Your task to perform on an android device: Open Chrome and go to the settings page Image 0: 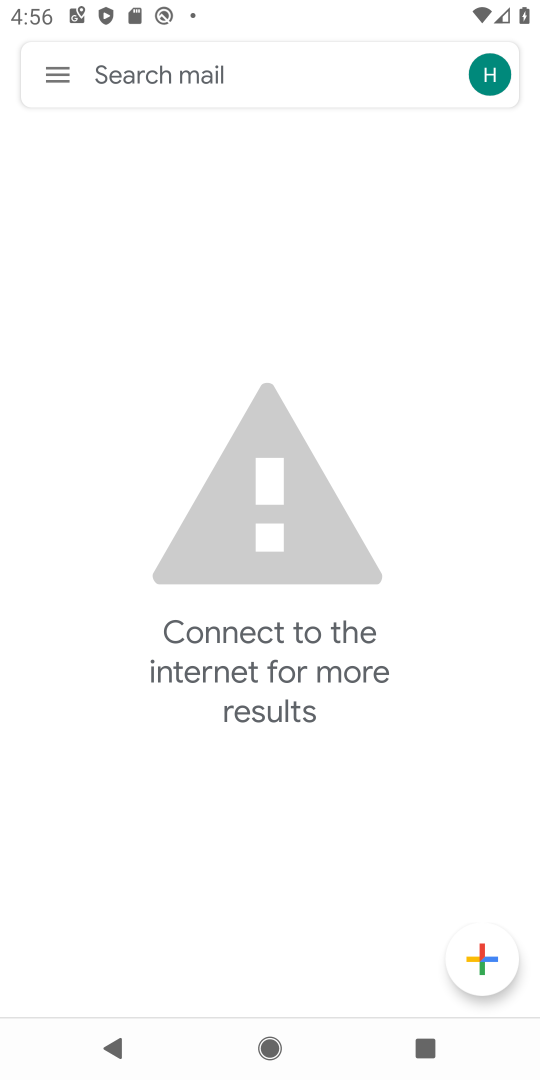
Step 0: press home button
Your task to perform on an android device: Open Chrome and go to the settings page Image 1: 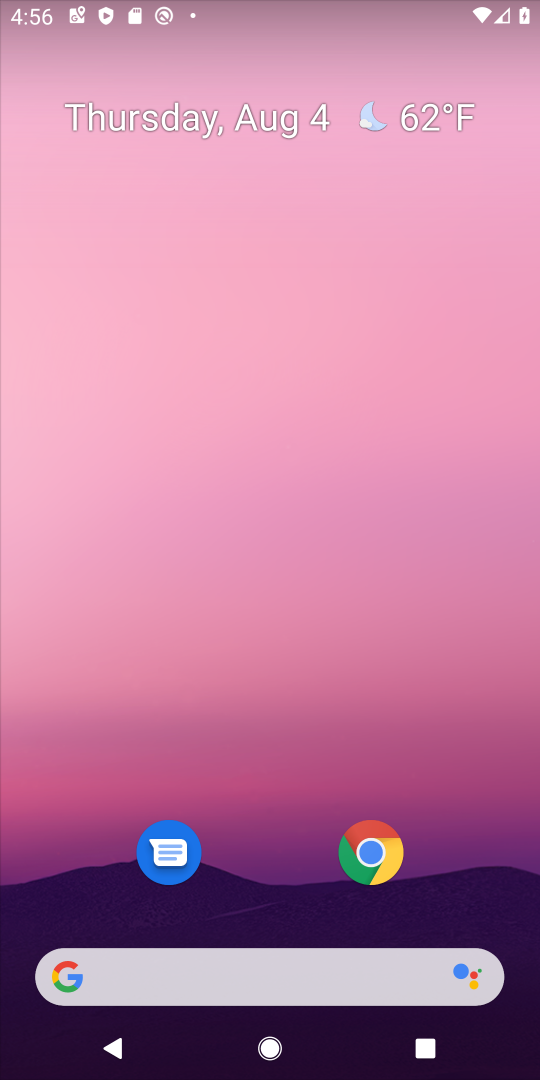
Step 1: click (381, 860)
Your task to perform on an android device: Open Chrome and go to the settings page Image 2: 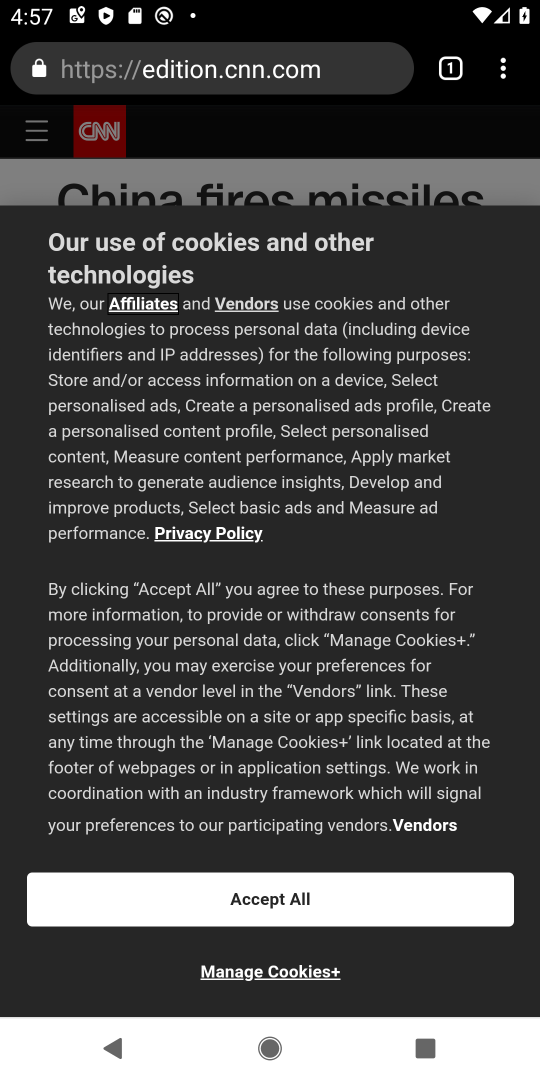
Step 2: click (504, 80)
Your task to perform on an android device: Open Chrome and go to the settings page Image 3: 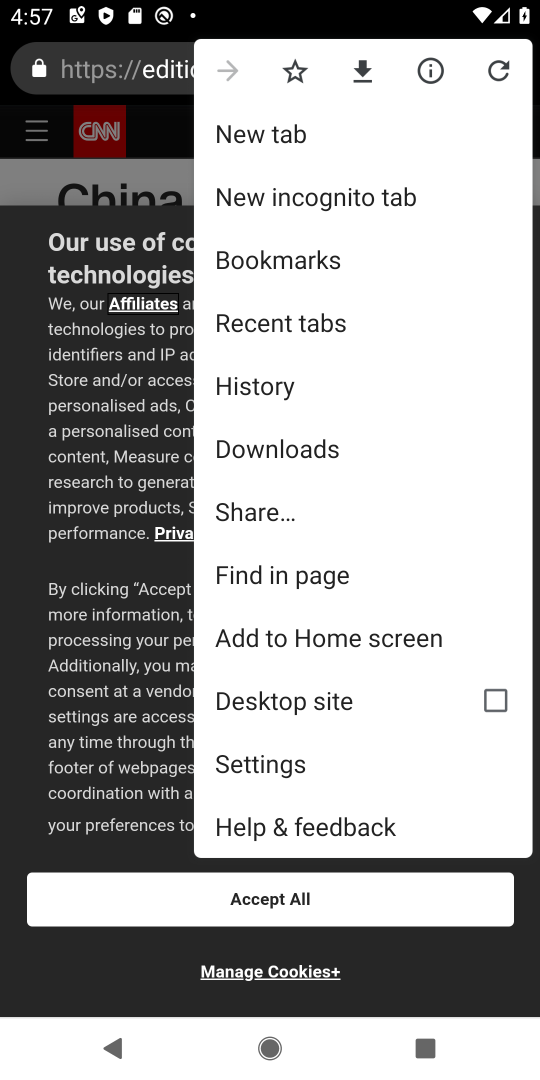
Step 3: click (257, 763)
Your task to perform on an android device: Open Chrome and go to the settings page Image 4: 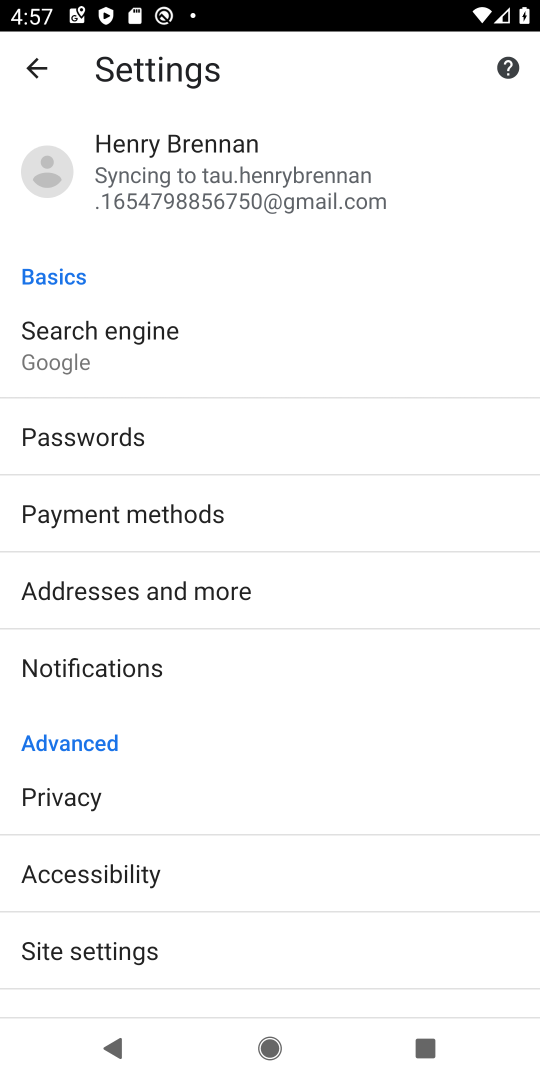
Step 4: task complete